Your task to perform on an android device: Open Reddit.com Image 0: 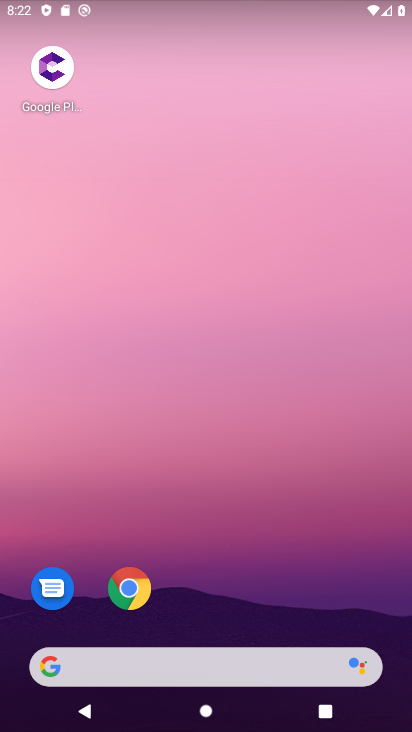
Step 0: click (132, 598)
Your task to perform on an android device: Open Reddit.com Image 1: 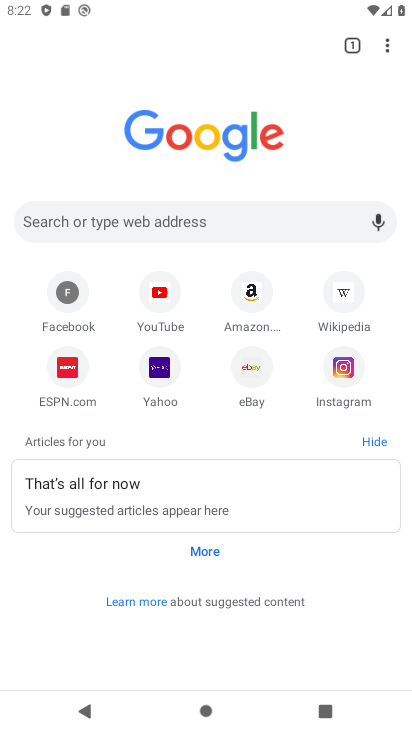
Step 1: click (215, 220)
Your task to perform on an android device: Open Reddit.com Image 2: 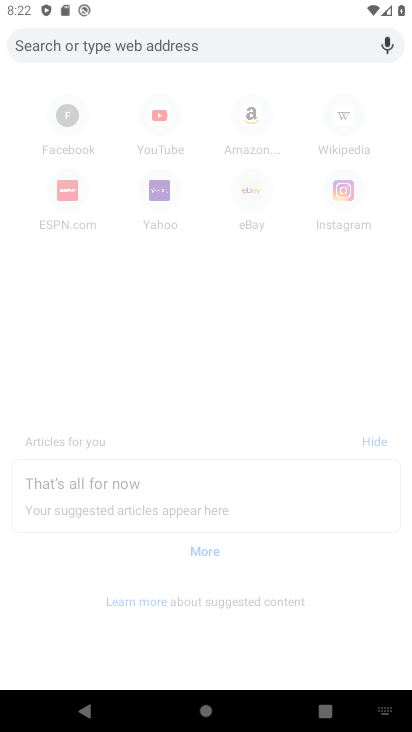
Step 2: type "reddit"
Your task to perform on an android device: Open Reddit.com Image 3: 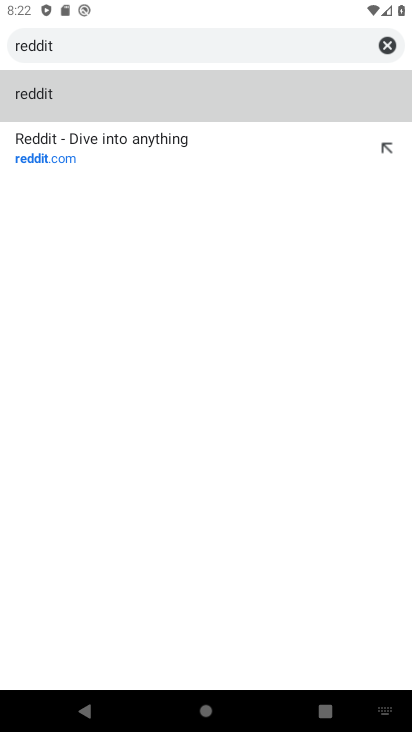
Step 3: click (216, 142)
Your task to perform on an android device: Open Reddit.com Image 4: 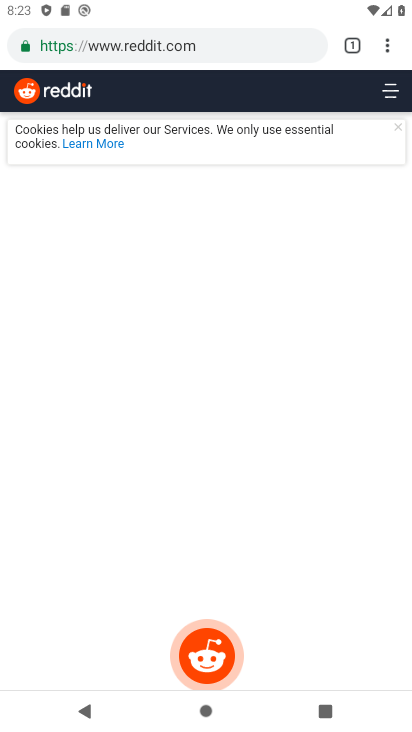
Step 4: task complete